Your task to perform on an android device: toggle data saver in the chrome app Image 0: 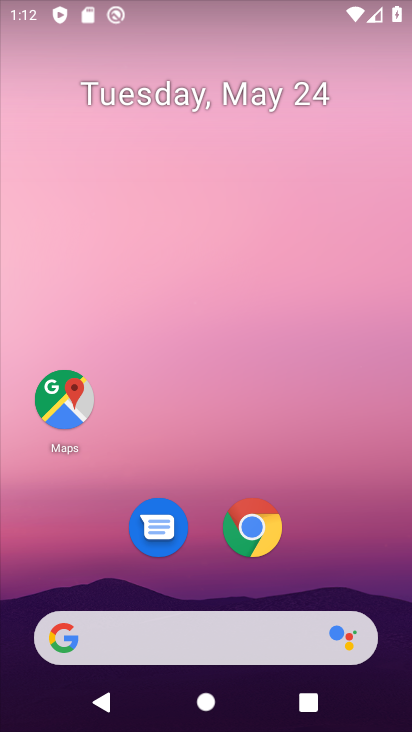
Step 0: click (236, 542)
Your task to perform on an android device: toggle data saver in the chrome app Image 1: 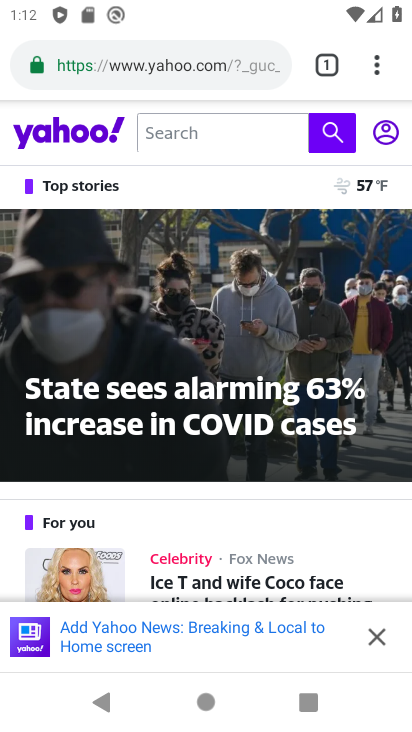
Step 1: click (377, 67)
Your task to perform on an android device: toggle data saver in the chrome app Image 2: 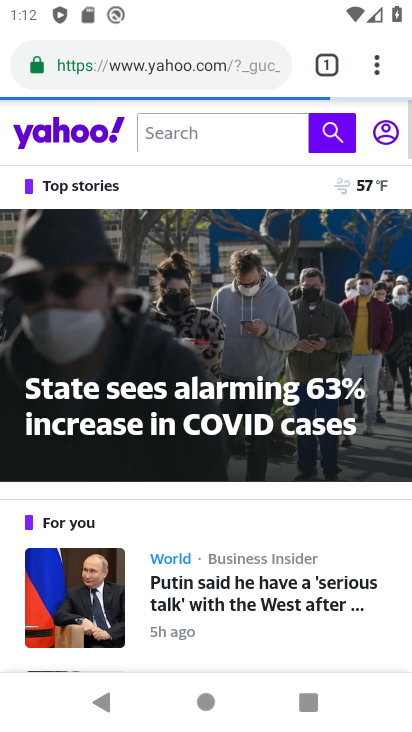
Step 2: click (382, 77)
Your task to perform on an android device: toggle data saver in the chrome app Image 3: 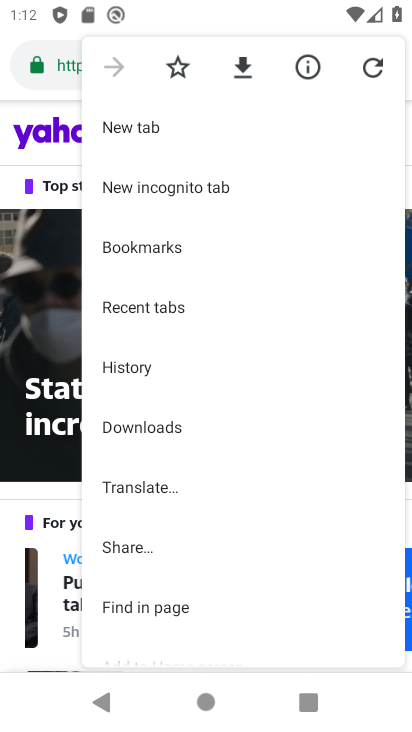
Step 3: drag from (190, 534) to (232, 148)
Your task to perform on an android device: toggle data saver in the chrome app Image 4: 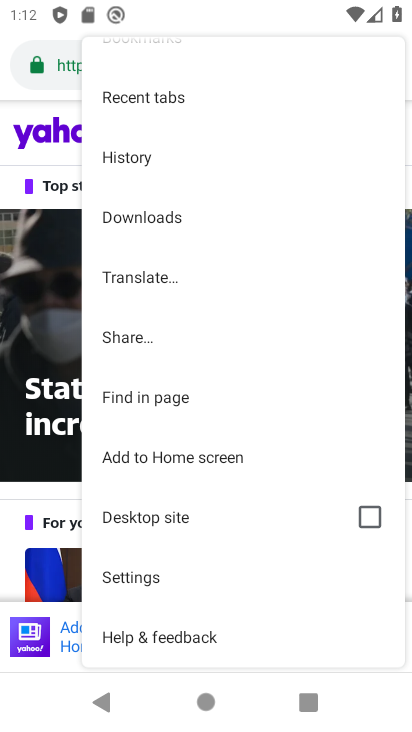
Step 4: click (144, 563)
Your task to perform on an android device: toggle data saver in the chrome app Image 5: 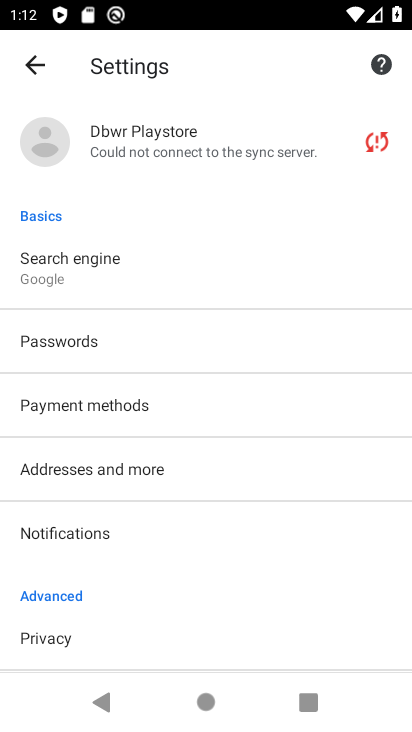
Step 5: drag from (137, 637) to (140, 285)
Your task to perform on an android device: toggle data saver in the chrome app Image 6: 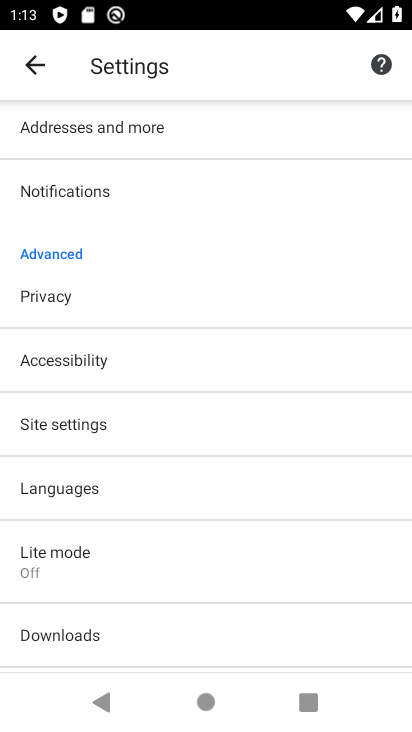
Step 6: click (82, 568)
Your task to perform on an android device: toggle data saver in the chrome app Image 7: 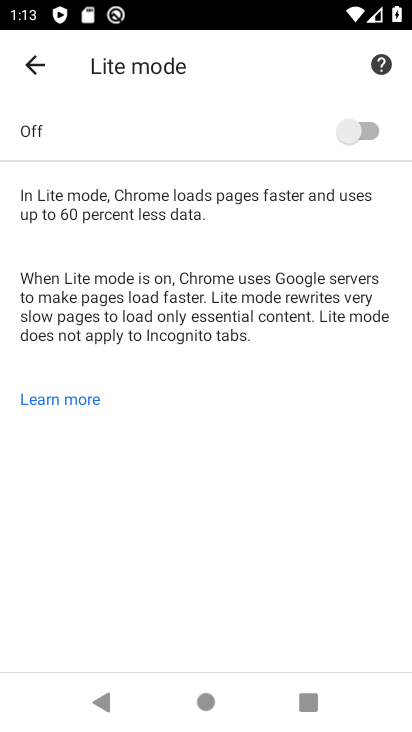
Step 7: click (364, 138)
Your task to perform on an android device: toggle data saver in the chrome app Image 8: 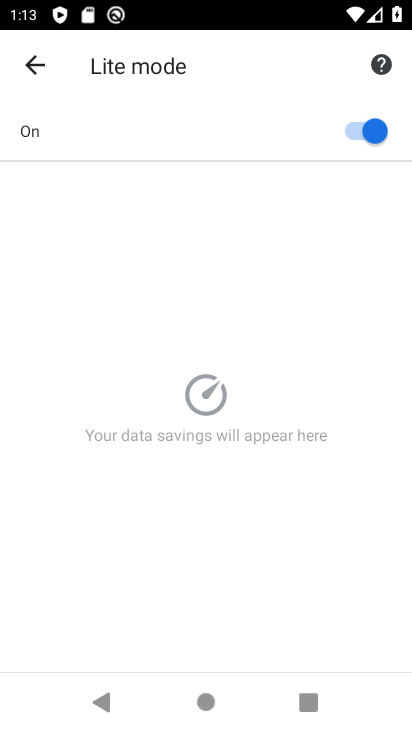
Step 8: task complete